Your task to perform on an android device: stop showing notifications on the lock screen Image 0: 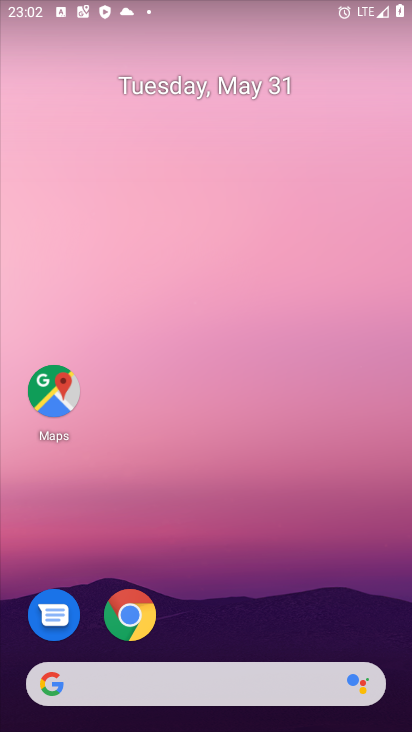
Step 0: drag from (351, 634) to (323, 90)
Your task to perform on an android device: stop showing notifications on the lock screen Image 1: 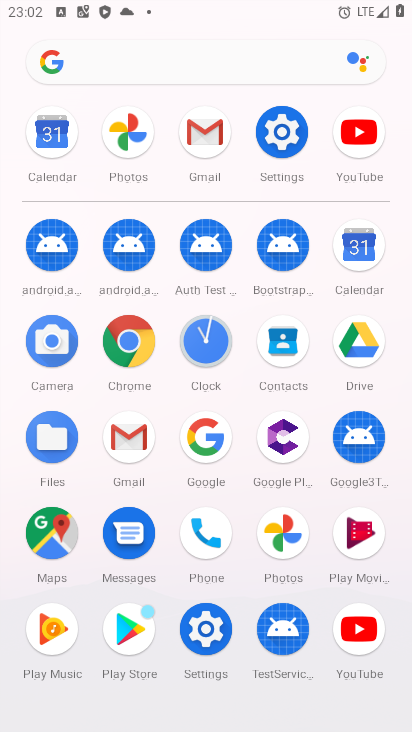
Step 1: click (206, 628)
Your task to perform on an android device: stop showing notifications on the lock screen Image 2: 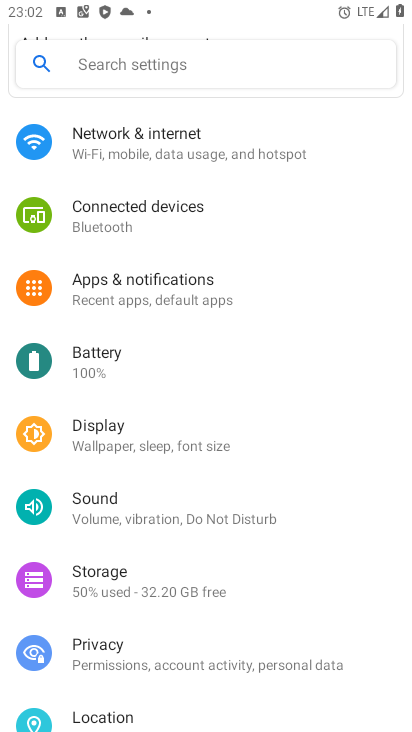
Step 2: click (168, 269)
Your task to perform on an android device: stop showing notifications on the lock screen Image 3: 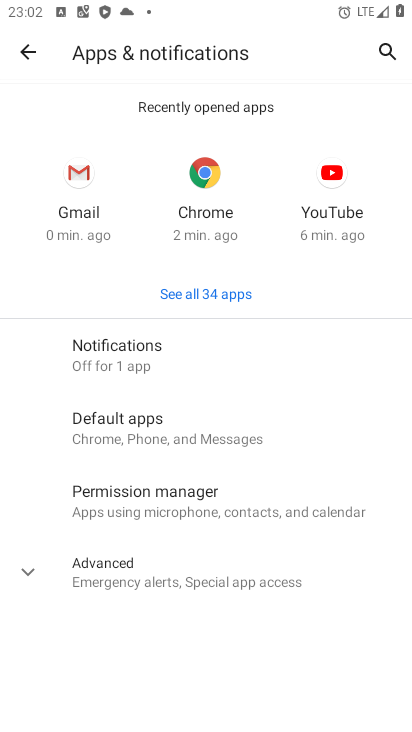
Step 3: click (141, 366)
Your task to perform on an android device: stop showing notifications on the lock screen Image 4: 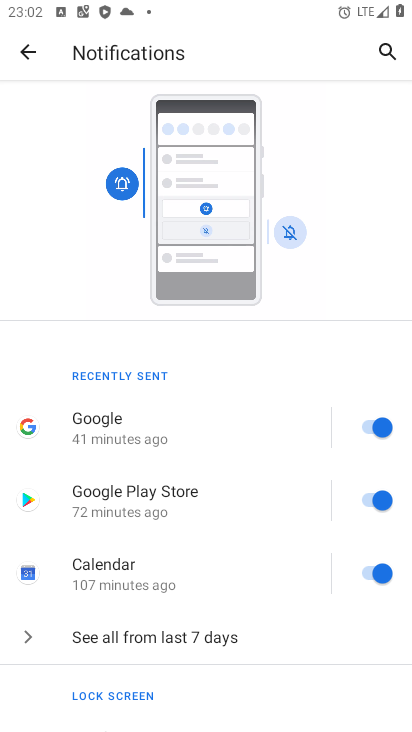
Step 4: drag from (248, 561) to (243, 183)
Your task to perform on an android device: stop showing notifications on the lock screen Image 5: 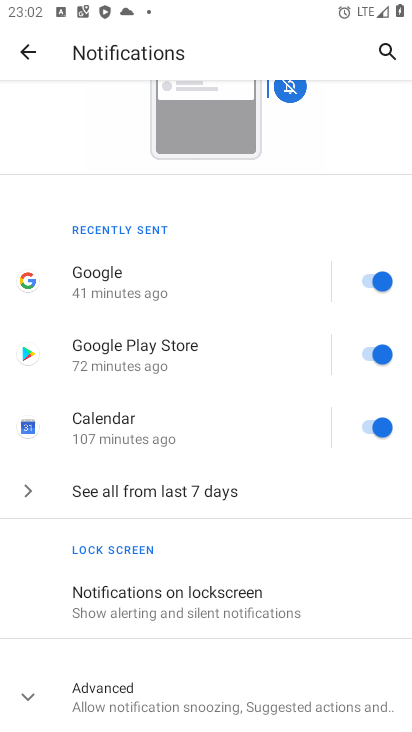
Step 5: click (144, 592)
Your task to perform on an android device: stop showing notifications on the lock screen Image 6: 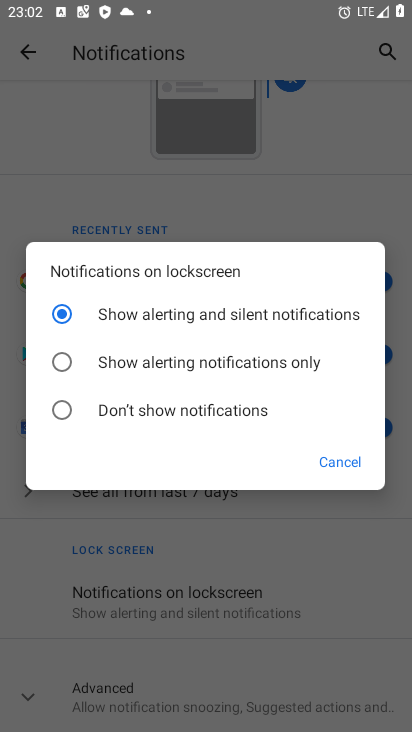
Step 6: click (62, 407)
Your task to perform on an android device: stop showing notifications on the lock screen Image 7: 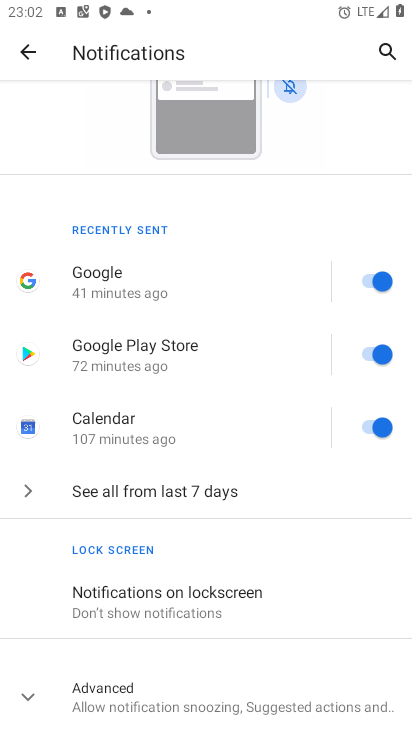
Step 7: task complete